Your task to perform on an android device: Open location settings Image 0: 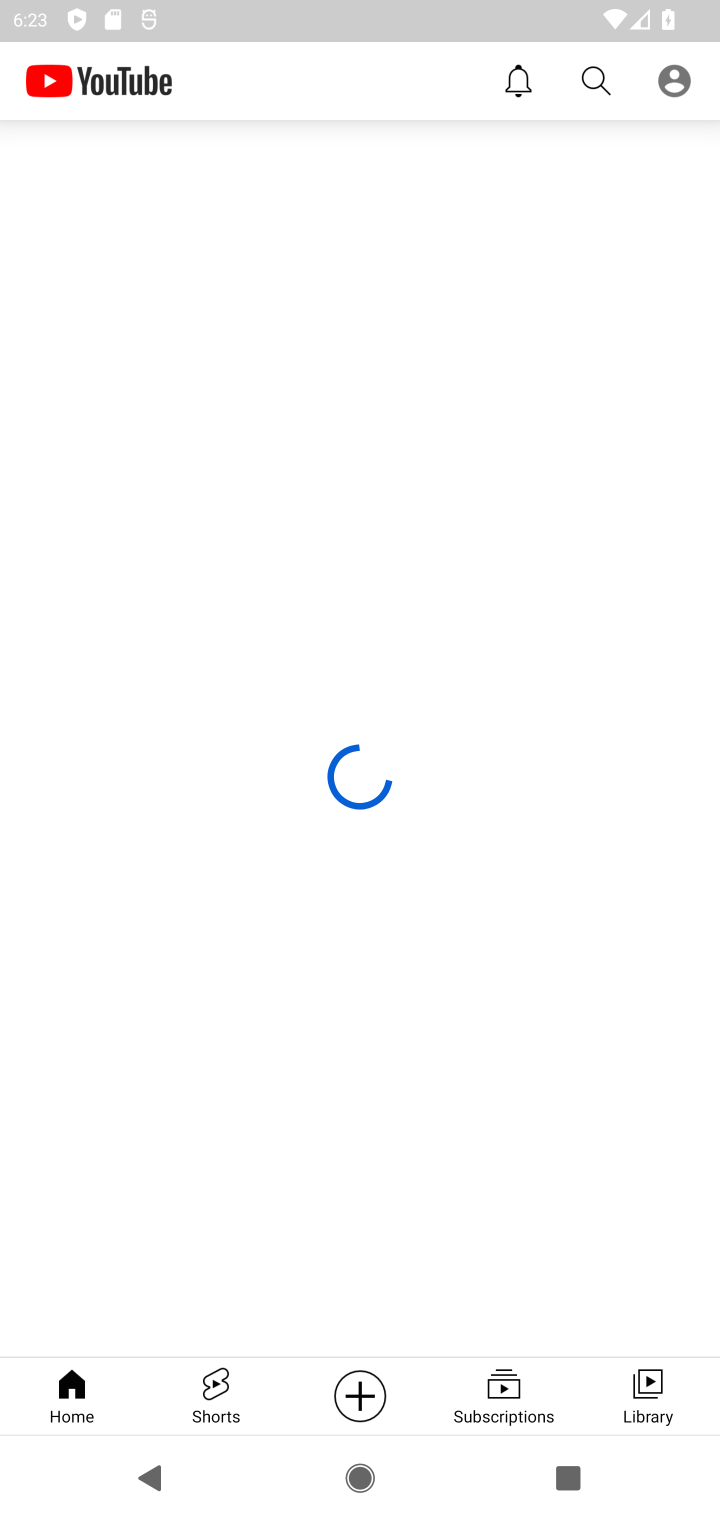
Step 0: press home button
Your task to perform on an android device: Open location settings Image 1: 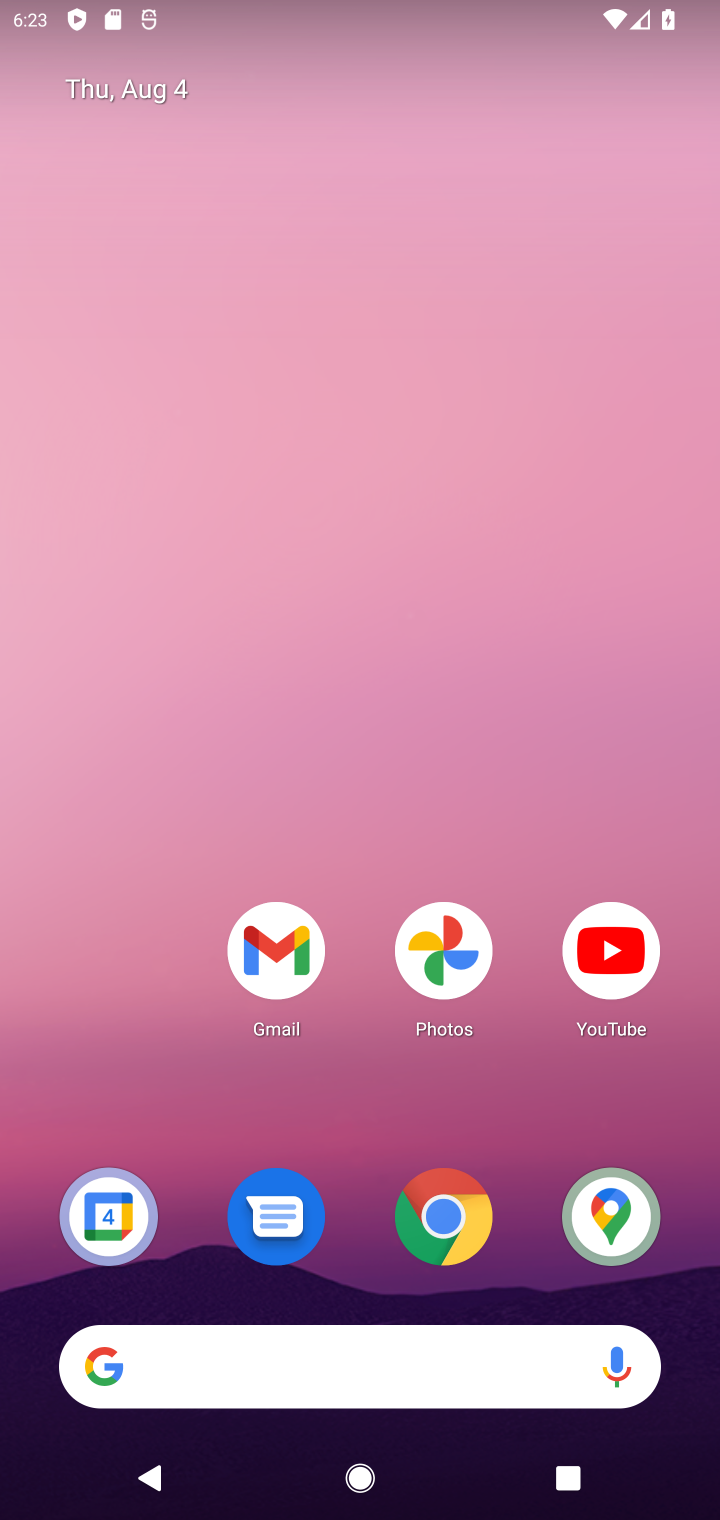
Step 1: drag from (120, 1144) to (494, 234)
Your task to perform on an android device: Open location settings Image 2: 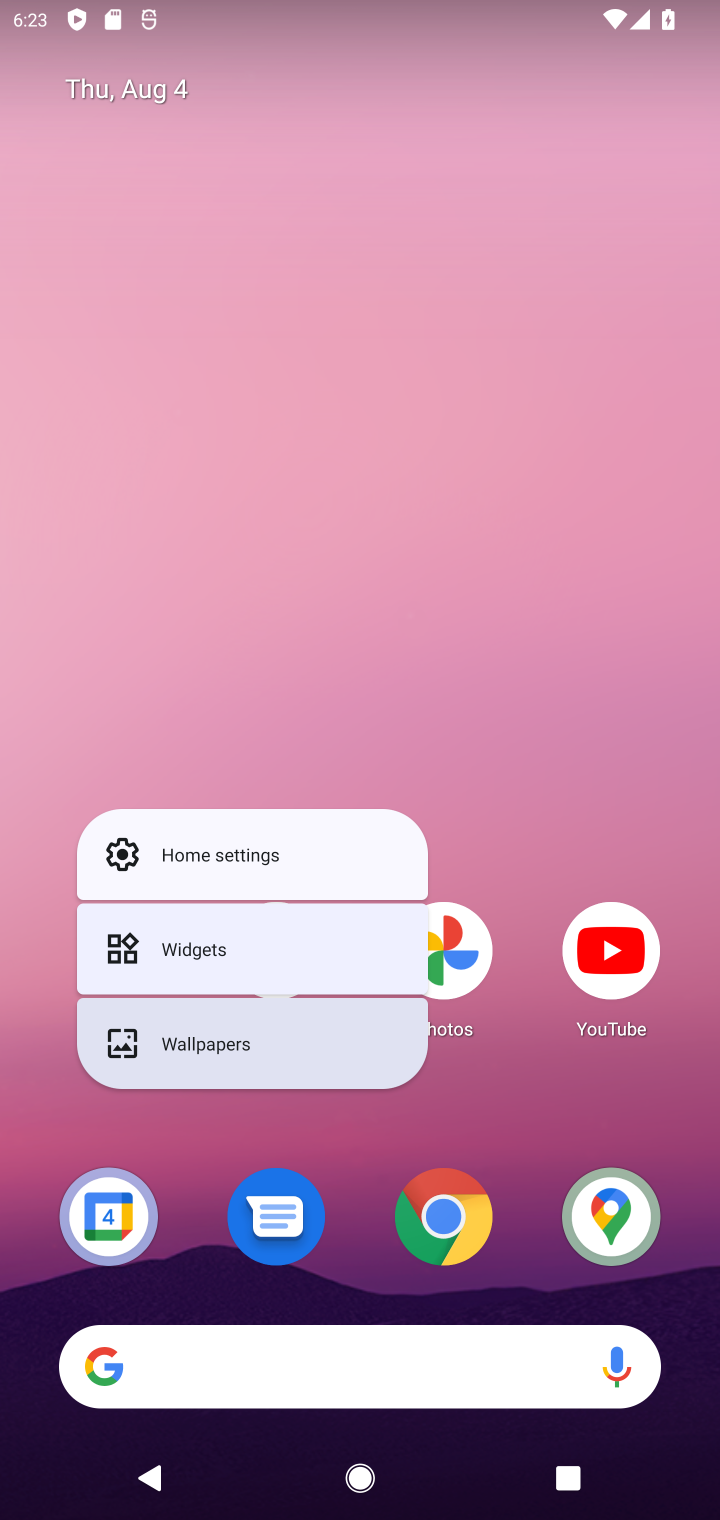
Step 2: click (459, 1093)
Your task to perform on an android device: Open location settings Image 3: 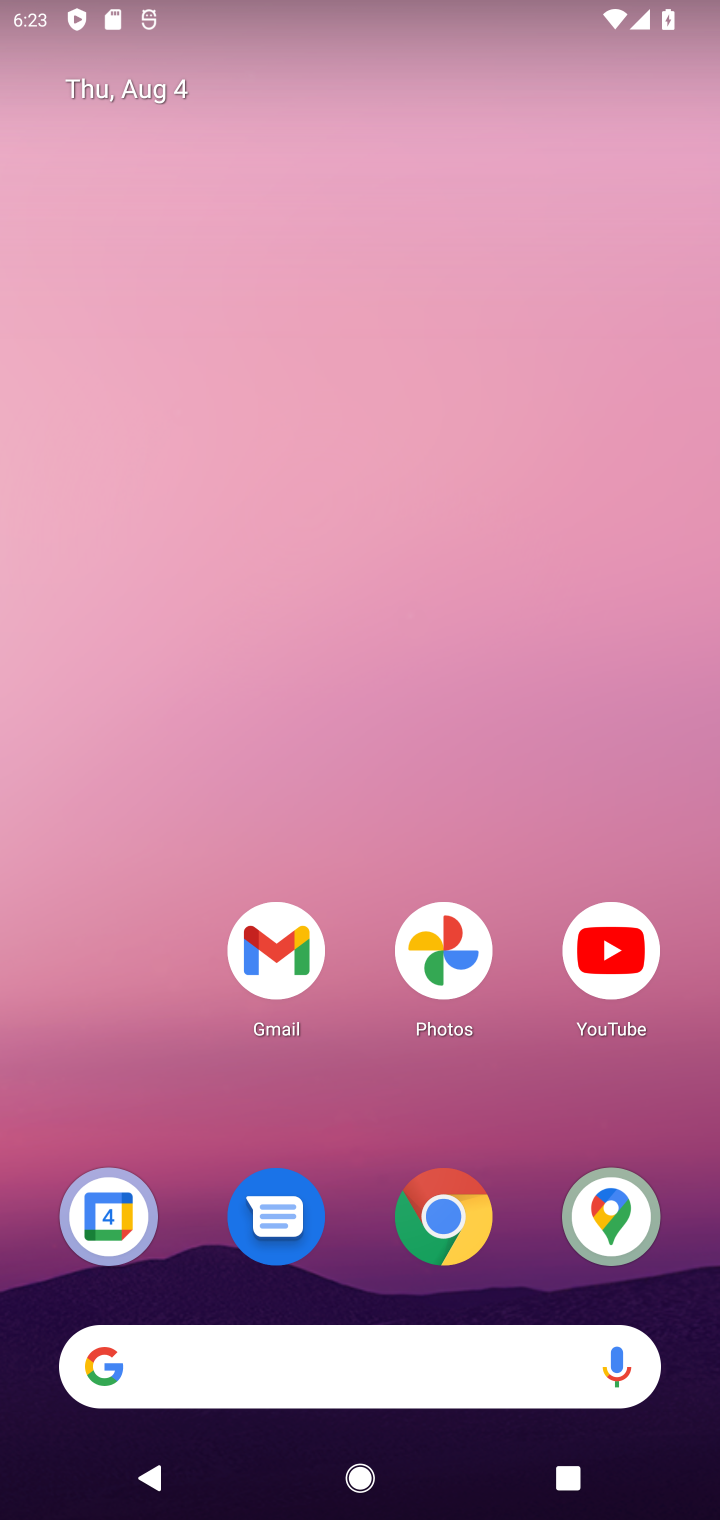
Step 3: drag from (216, 1136) to (429, 45)
Your task to perform on an android device: Open location settings Image 4: 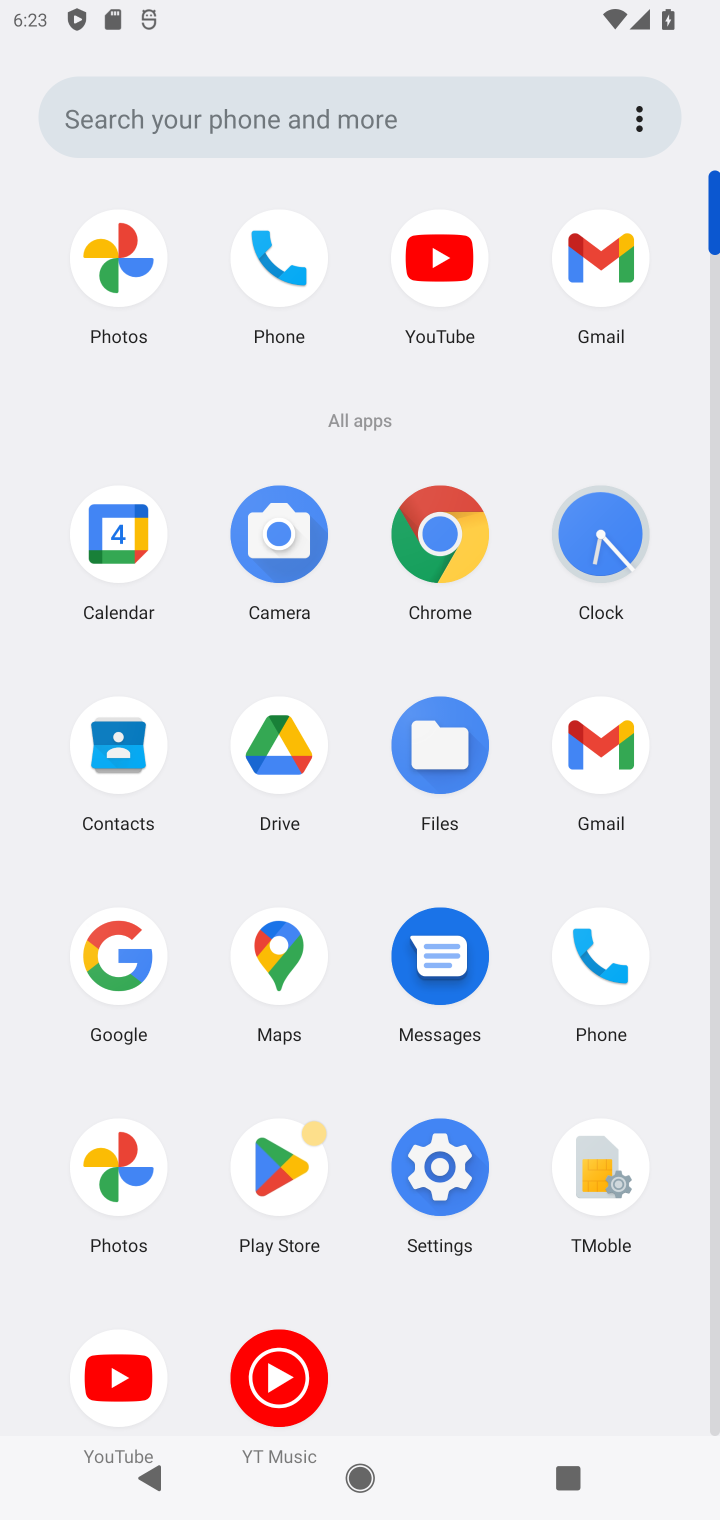
Step 4: click (474, 1178)
Your task to perform on an android device: Open location settings Image 5: 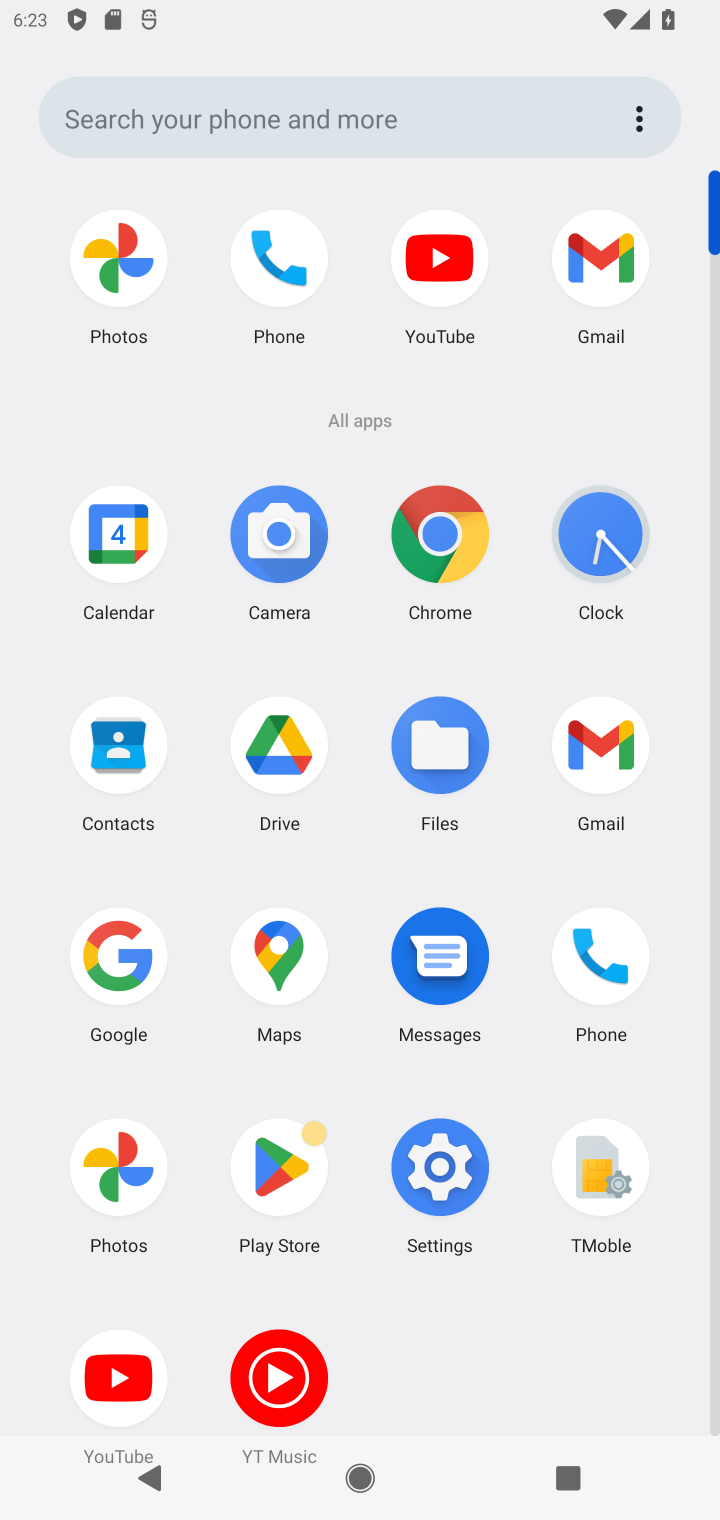
Step 5: click (474, 1178)
Your task to perform on an android device: Open location settings Image 6: 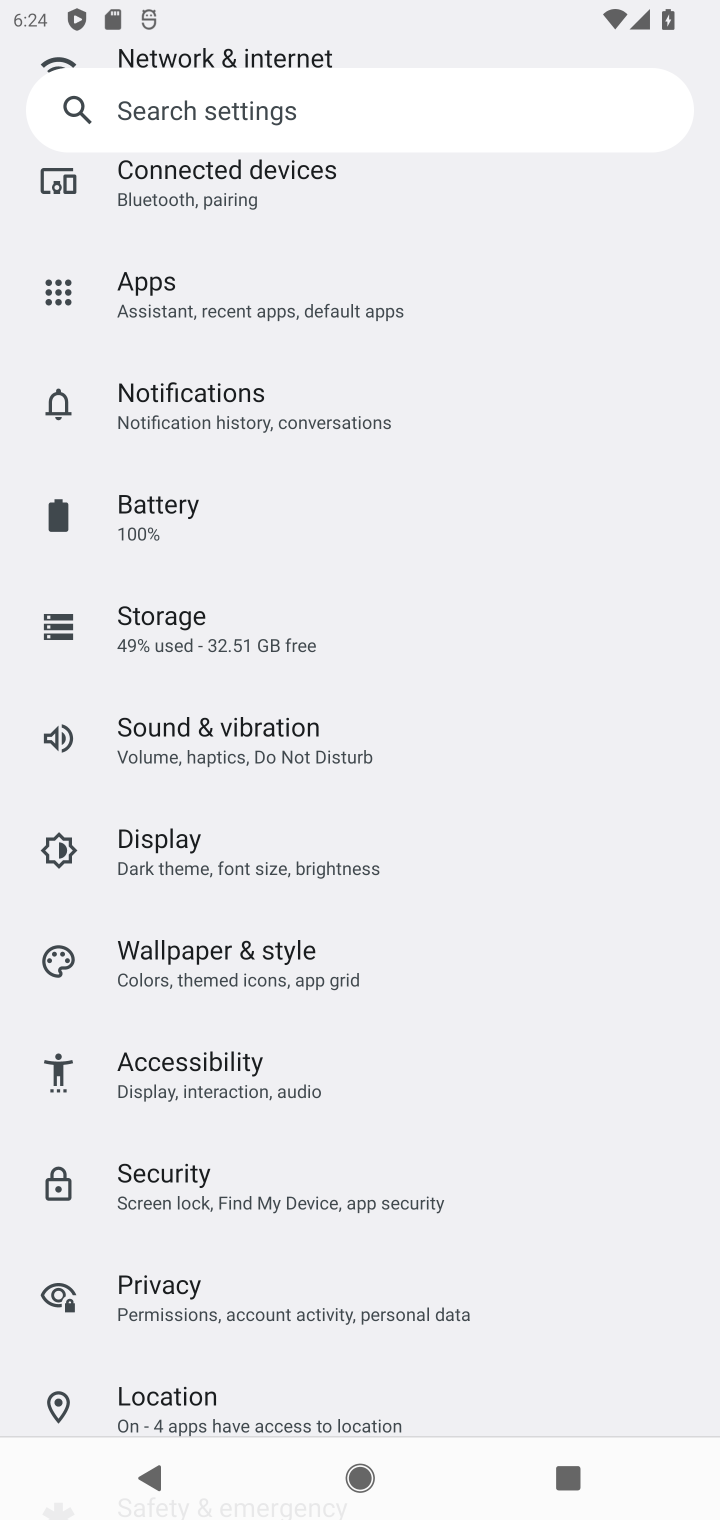
Step 6: click (290, 1392)
Your task to perform on an android device: Open location settings Image 7: 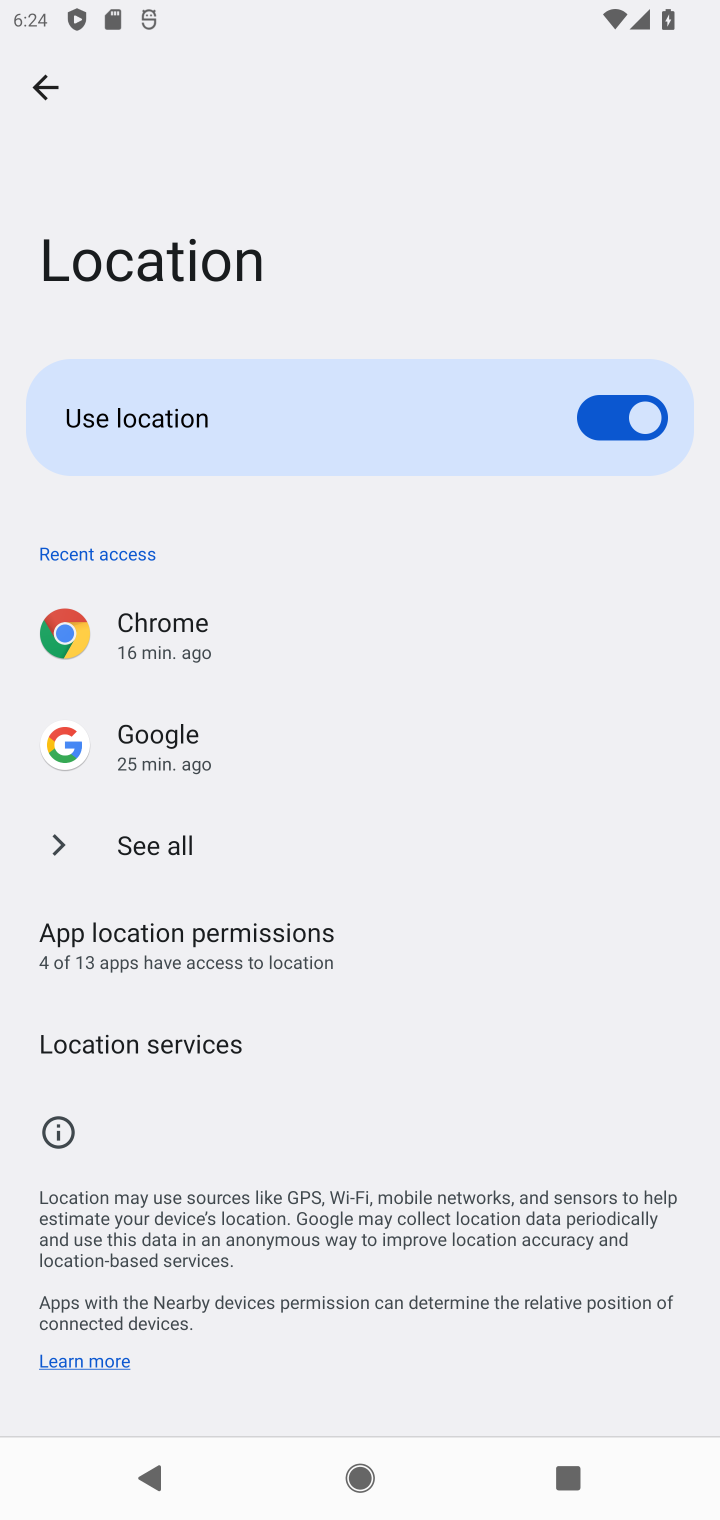
Step 7: press home button
Your task to perform on an android device: Open location settings Image 8: 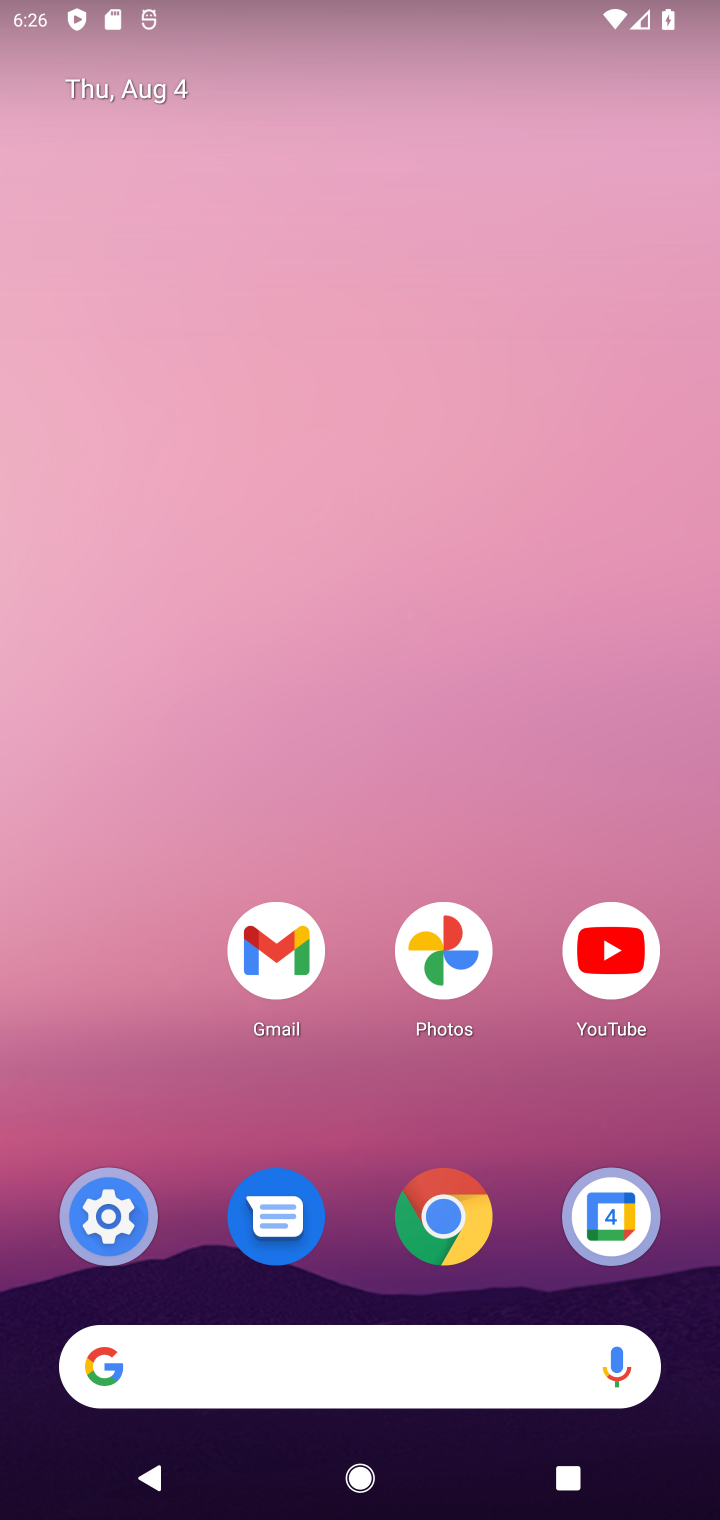
Step 8: click (133, 1200)
Your task to perform on an android device: Open location settings Image 9: 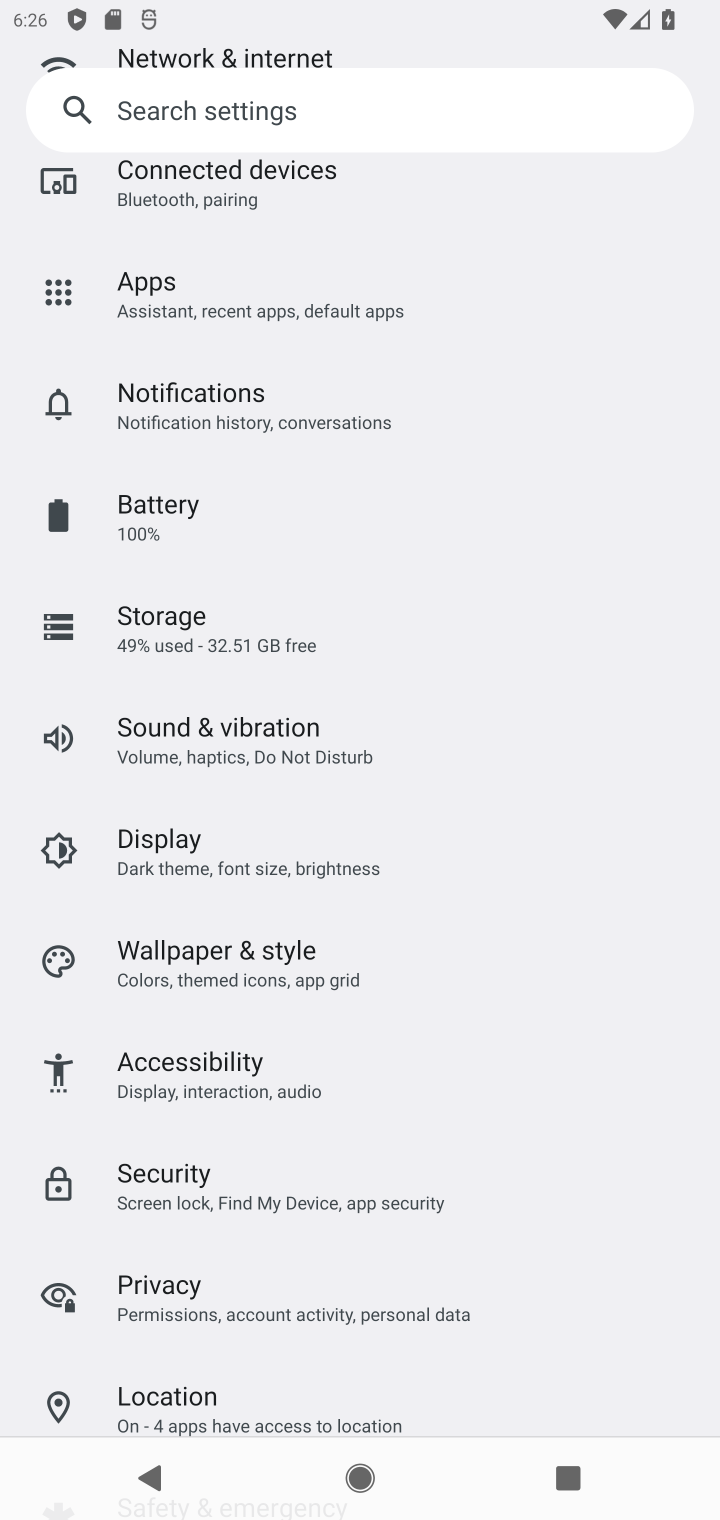
Step 9: click (244, 1387)
Your task to perform on an android device: Open location settings Image 10: 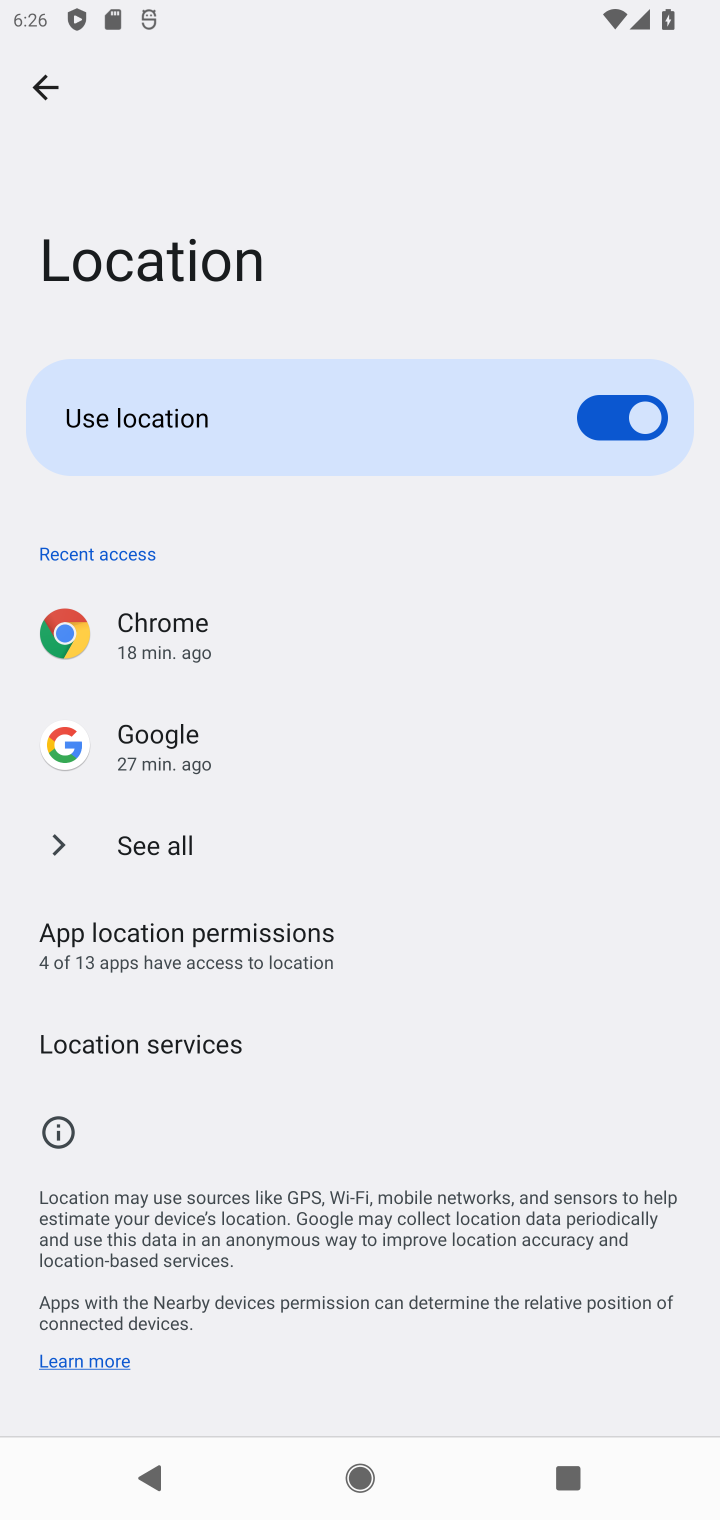
Step 10: task complete